Your task to perform on an android device: turn off priority inbox in the gmail app Image 0: 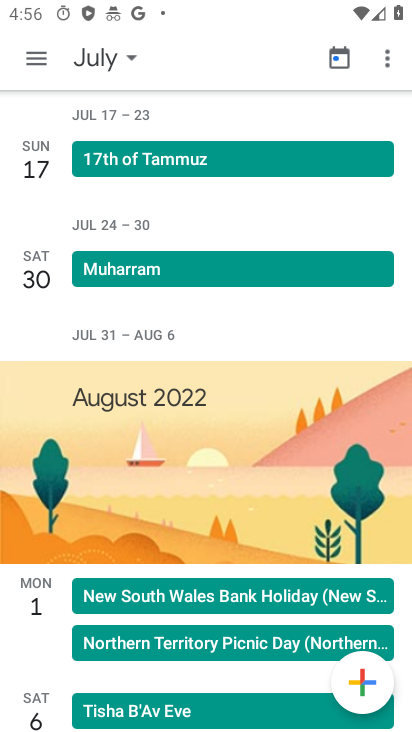
Step 0: press home button
Your task to perform on an android device: turn off priority inbox in the gmail app Image 1: 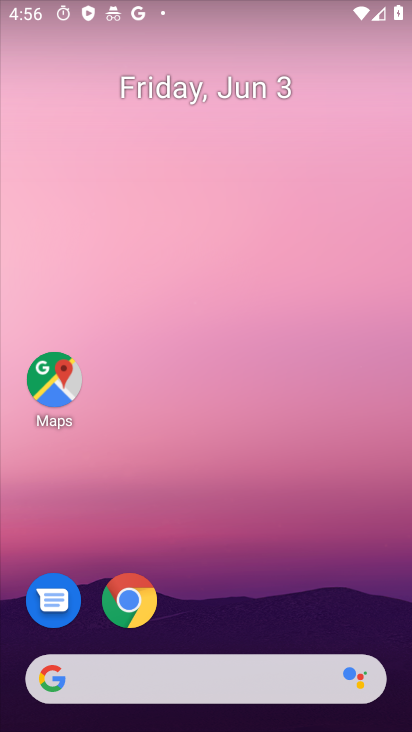
Step 1: drag from (396, 696) to (287, 64)
Your task to perform on an android device: turn off priority inbox in the gmail app Image 2: 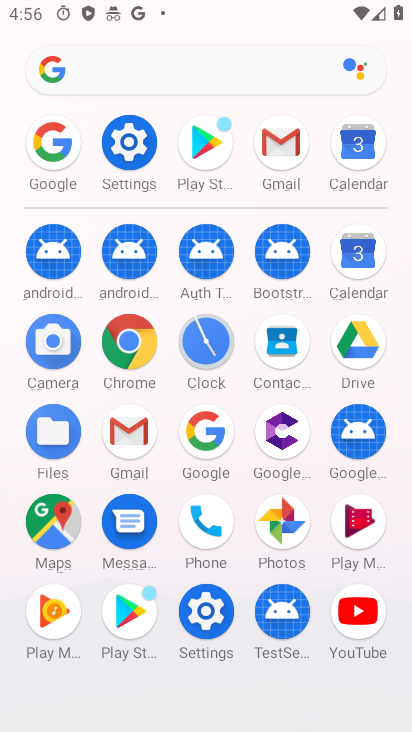
Step 2: click (137, 430)
Your task to perform on an android device: turn off priority inbox in the gmail app Image 3: 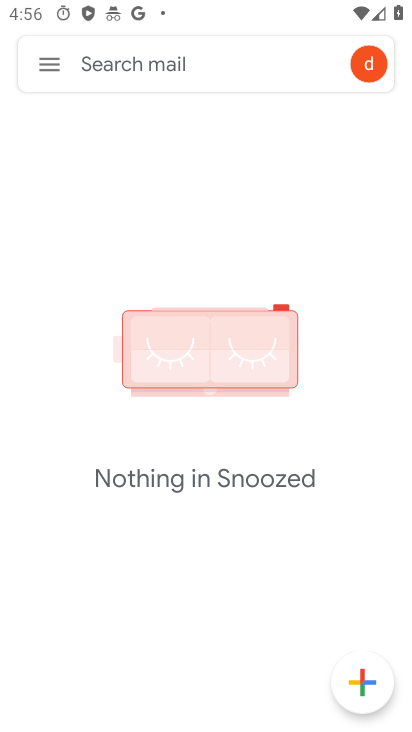
Step 3: click (60, 64)
Your task to perform on an android device: turn off priority inbox in the gmail app Image 4: 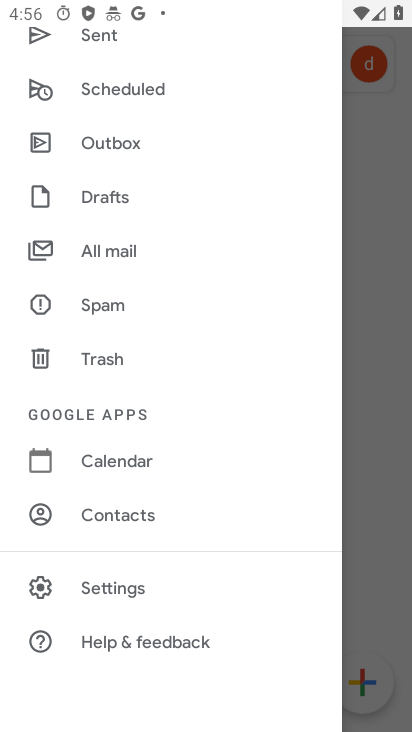
Step 4: click (110, 582)
Your task to perform on an android device: turn off priority inbox in the gmail app Image 5: 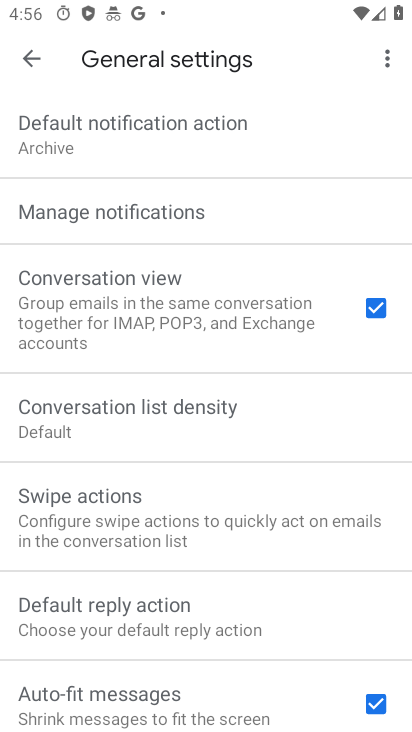
Step 5: click (29, 59)
Your task to perform on an android device: turn off priority inbox in the gmail app Image 6: 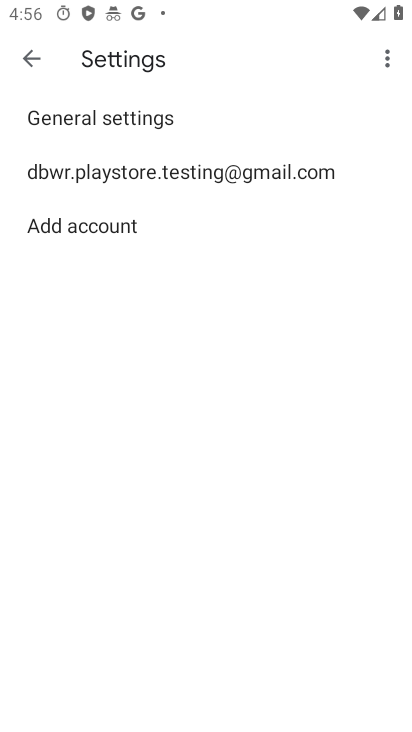
Step 6: click (78, 168)
Your task to perform on an android device: turn off priority inbox in the gmail app Image 7: 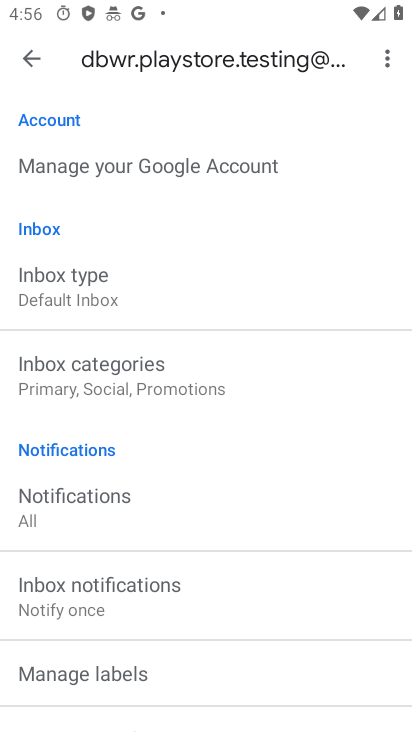
Step 7: task complete